Your task to perform on an android device: turn off sleep mode Image 0: 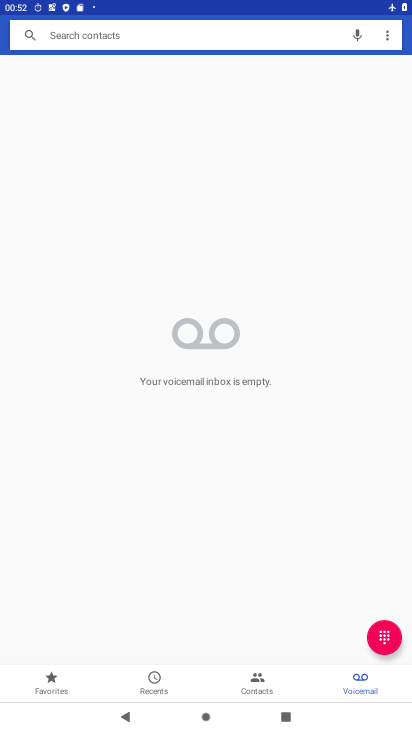
Step 0: press home button
Your task to perform on an android device: turn off sleep mode Image 1: 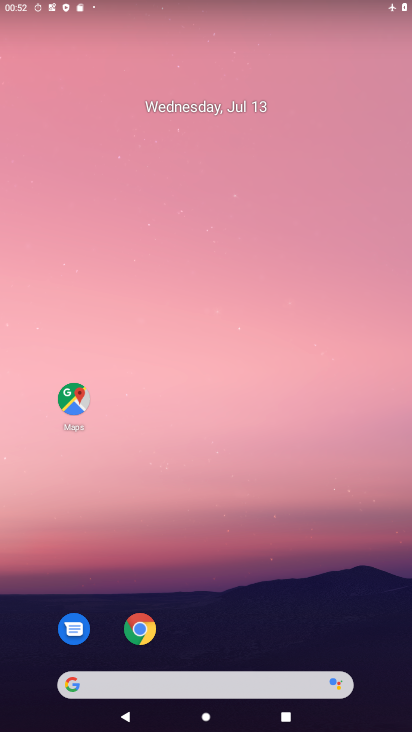
Step 1: drag from (191, 648) to (183, 275)
Your task to perform on an android device: turn off sleep mode Image 2: 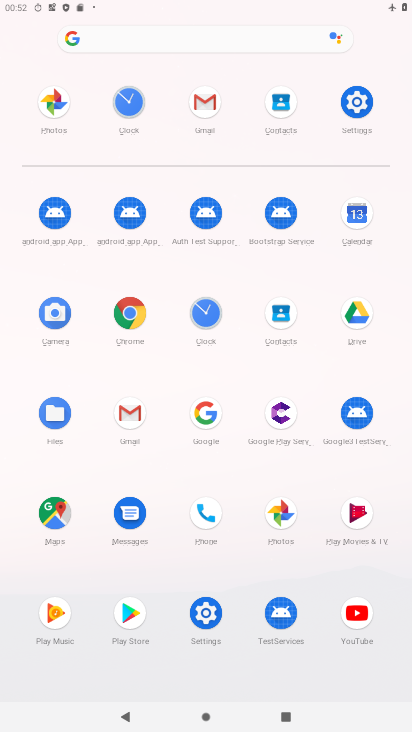
Step 2: click (349, 101)
Your task to perform on an android device: turn off sleep mode Image 3: 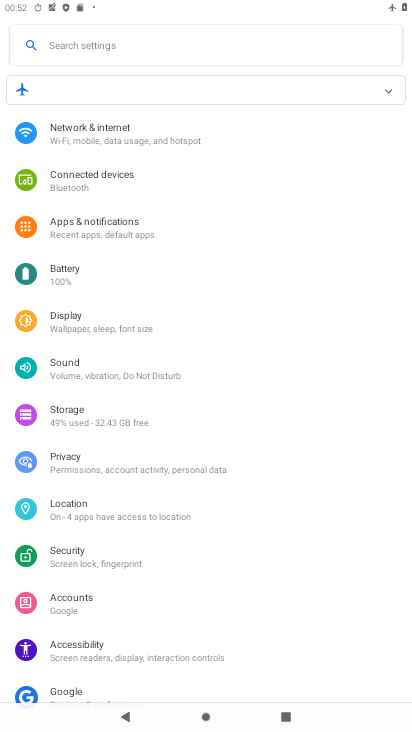
Step 3: click (123, 312)
Your task to perform on an android device: turn off sleep mode Image 4: 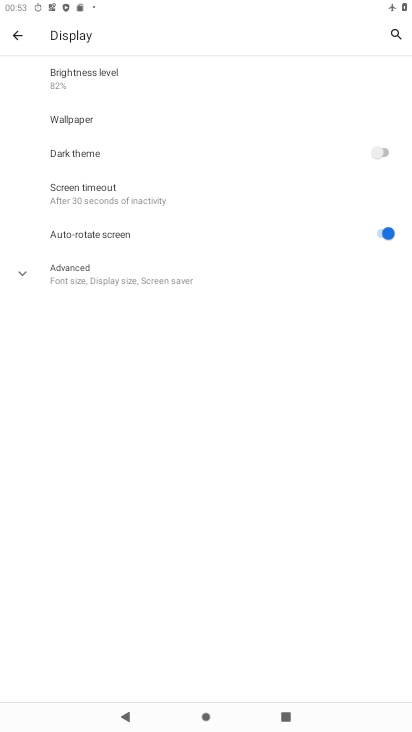
Step 4: click (113, 187)
Your task to perform on an android device: turn off sleep mode Image 5: 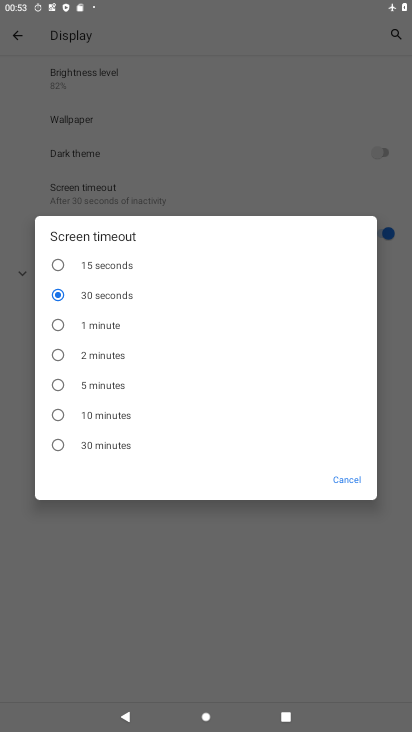
Step 5: click (100, 275)
Your task to perform on an android device: turn off sleep mode Image 6: 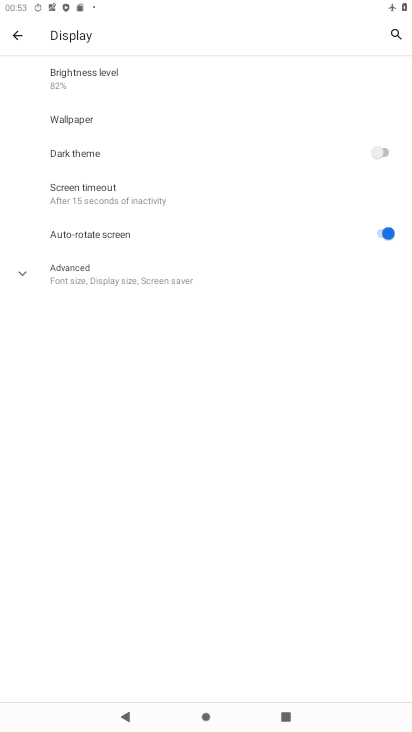
Step 6: task complete